Your task to perform on an android device: turn on improve location accuracy Image 0: 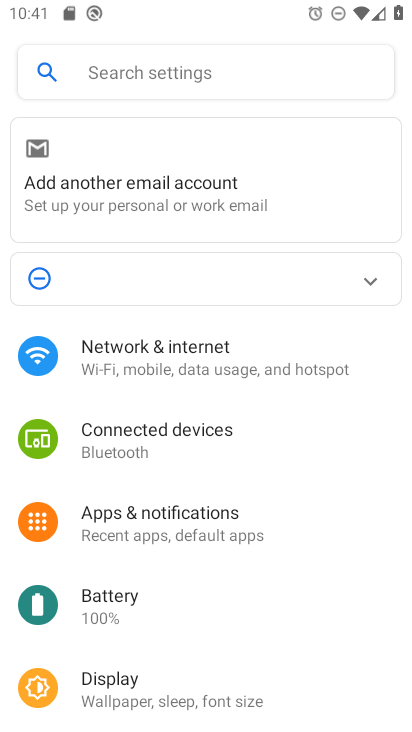
Step 0: press home button
Your task to perform on an android device: turn on improve location accuracy Image 1: 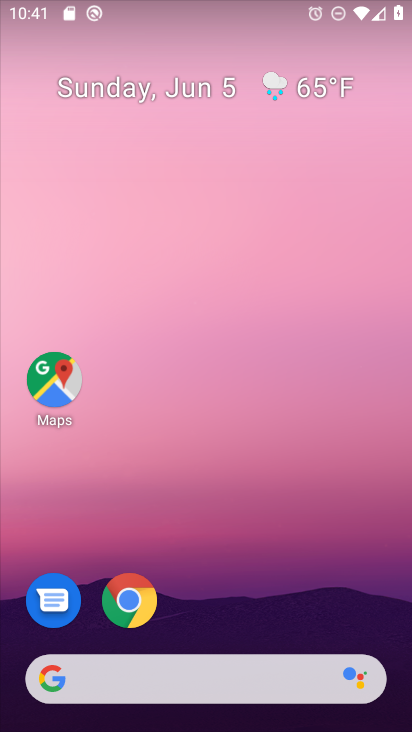
Step 1: drag from (389, 666) to (338, 31)
Your task to perform on an android device: turn on improve location accuracy Image 2: 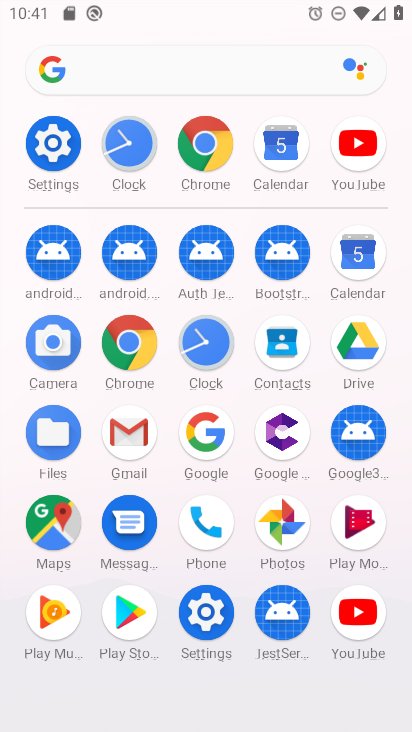
Step 2: click (205, 618)
Your task to perform on an android device: turn on improve location accuracy Image 3: 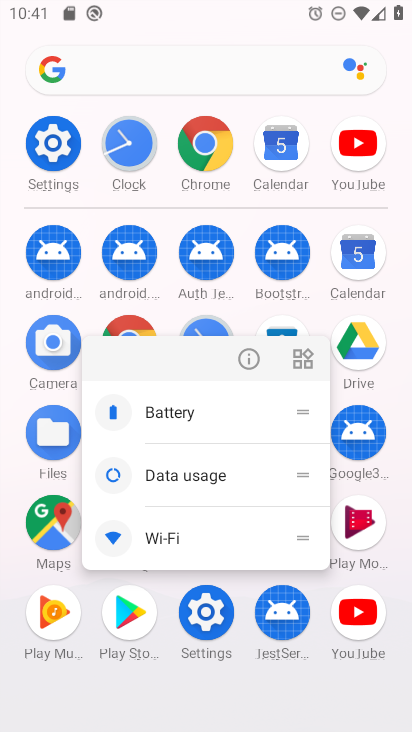
Step 3: click (205, 618)
Your task to perform on an android device: turn on improve location accuracy Image 4: 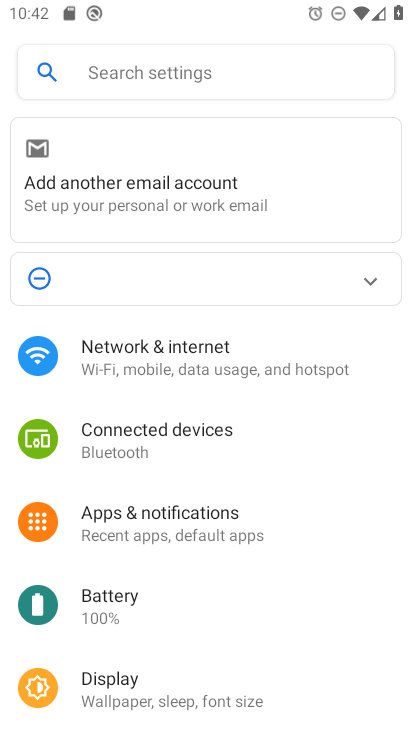
Step 4: drag from (220, 670) to (204, 169)
Your task to perform on an android device: turn on improve location accuracy Image 5: 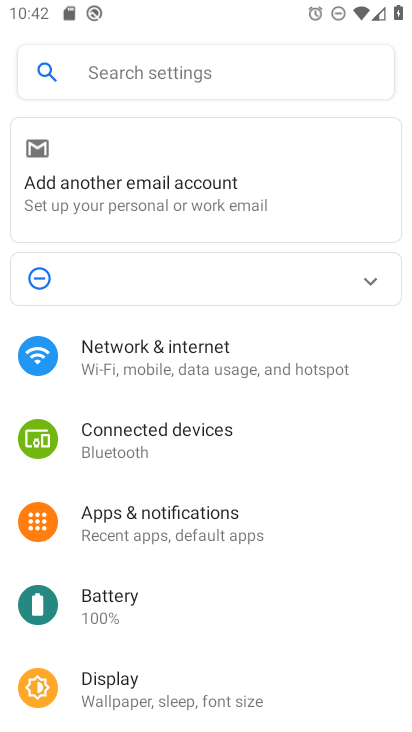
Step 5: drag from (125, 617) to (215, 196)
Your task to perform on an android device: turn on improve location accuracy Image 6: 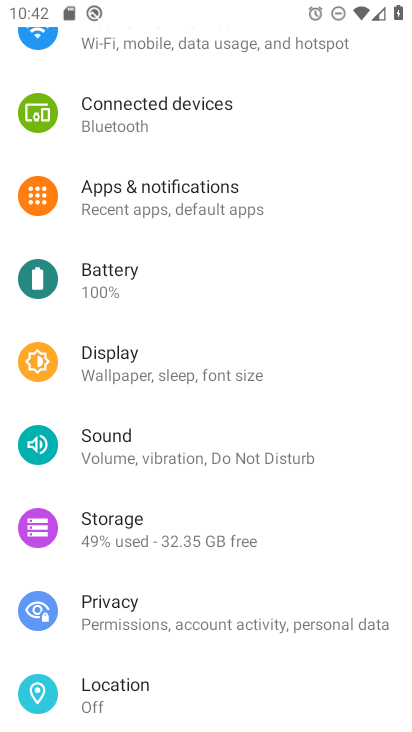
Step 6: click (135, 681)
Your task to perform on an android device: turn on improve location accuracy Image 7: 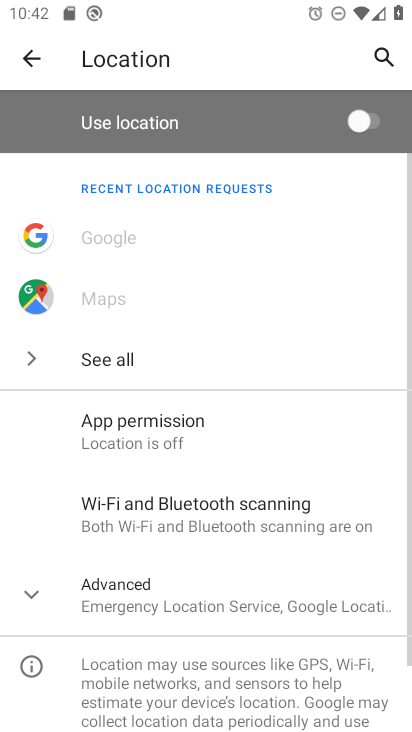
Step 7: click (243, 590)
Your task to perform on an android device: turn on improve location accuracy Image 8: 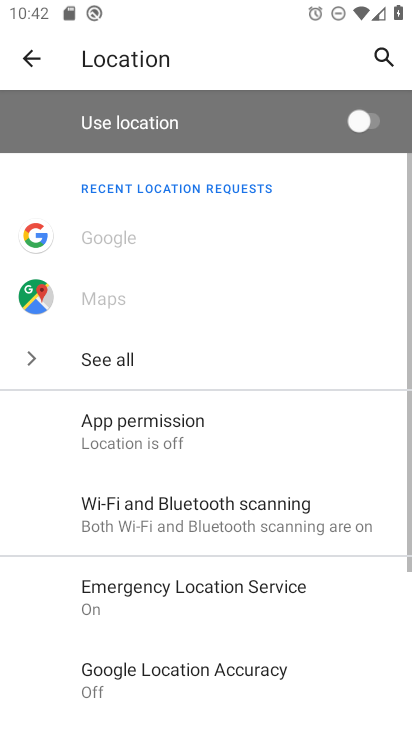
Step 8: click (208, 684)
Your task to perform on an android device: turn on improve location accuracy Image 9: 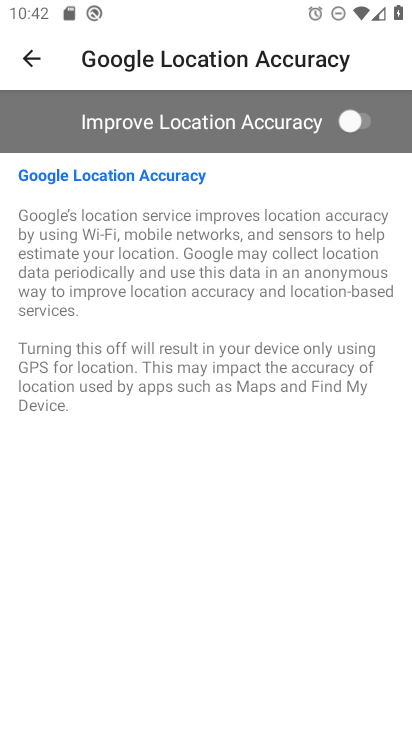
Step 9: click (363, 117)
Your task to perform on an android device: turn on improve location accuracy Image 10: 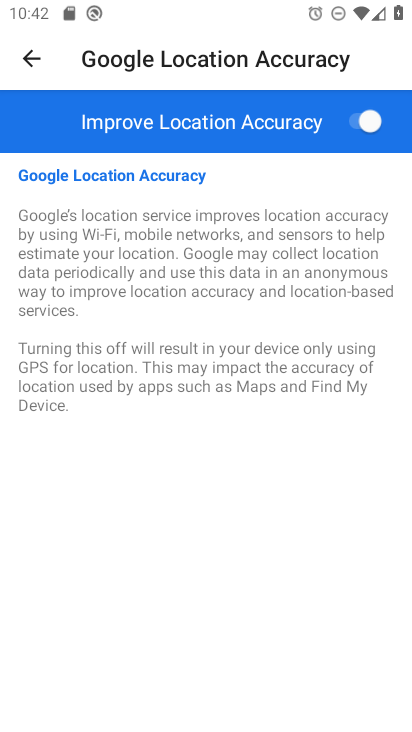
Step 10: task complete